Your task to perform on an android device: find photos in the google photos app Image 0: 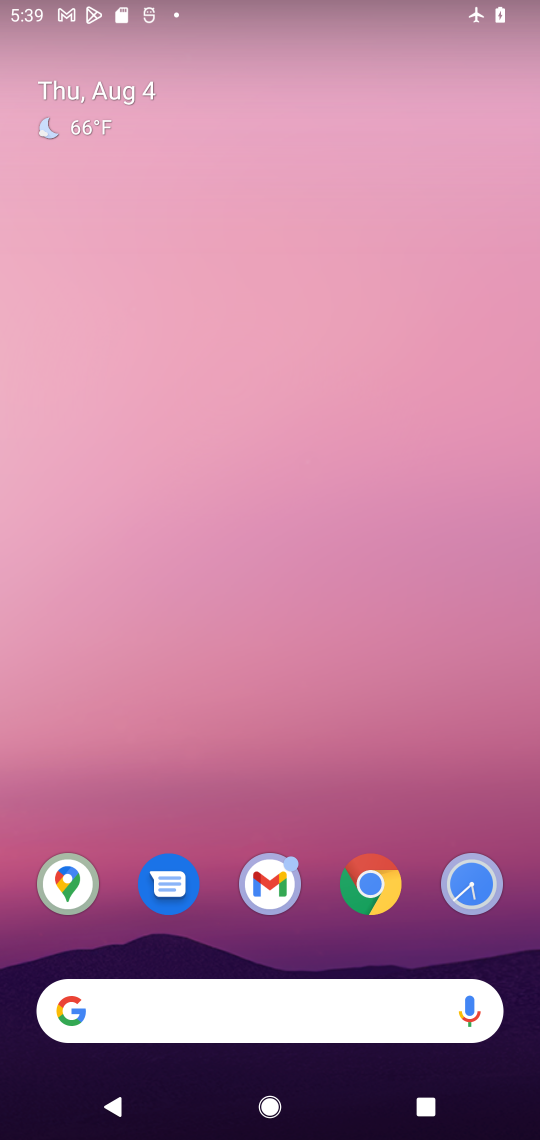
Step 0: drag from (233, 966) to (161, 128)
Your task to perform on an android device: find photos in the google photos app Image 1: 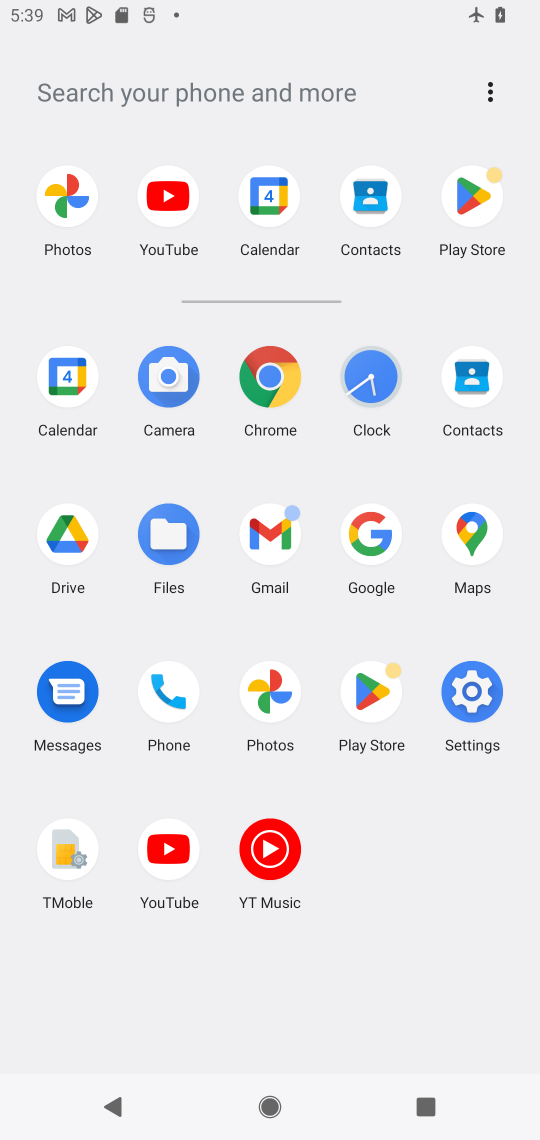
Step 1: click (264, 682)
Your task to perform on an android device: find photos in the google photos app Image 2: 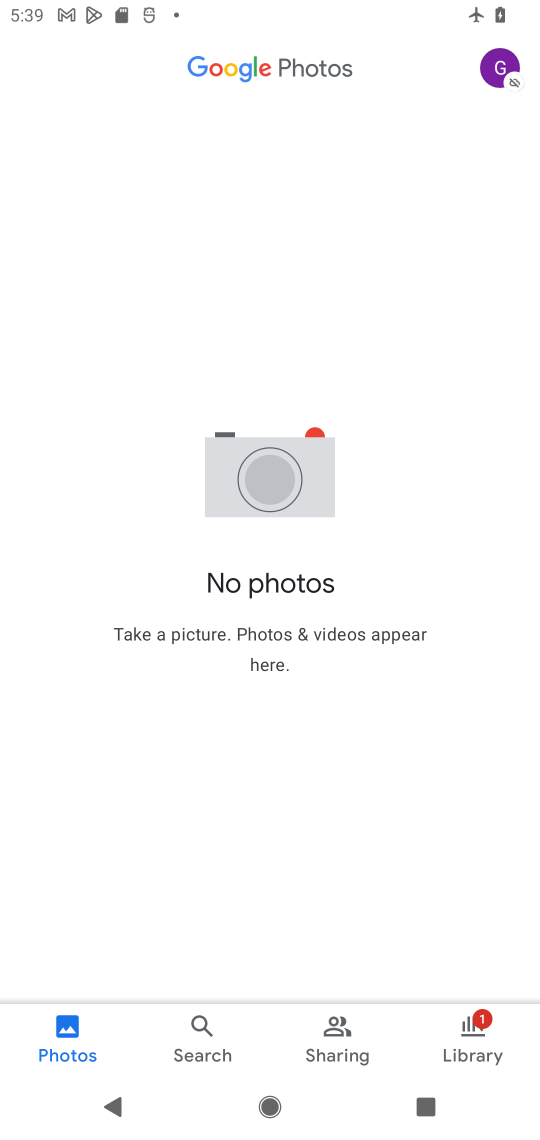
Step 2: task complete